Your task to perform on an android device: snooze an email in the gmail app Image 0: 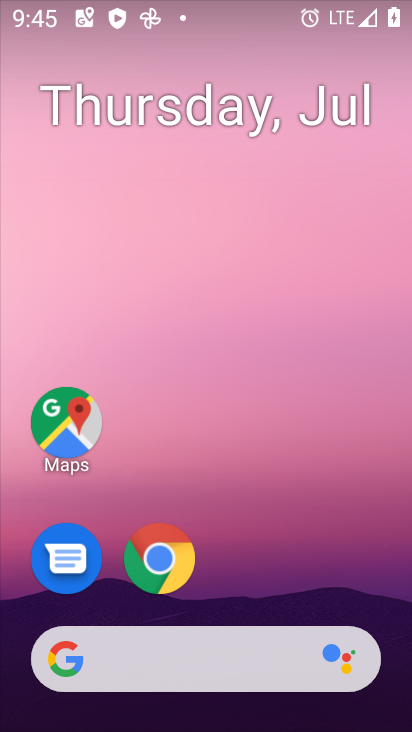
Step 0: drag from (372, 595) to (375, 135)
Your task to perform on an android device: snooze an email in the gmail app Image 1: 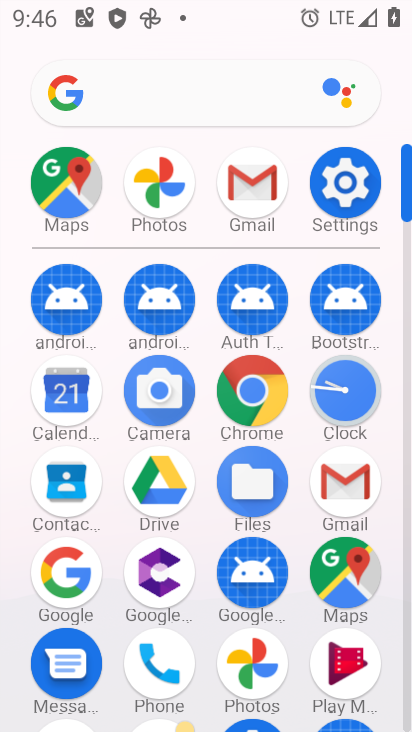
Step 1: click (268, 184)
Your task to perform on an android device: snooze an email in the gmail app Image 2: 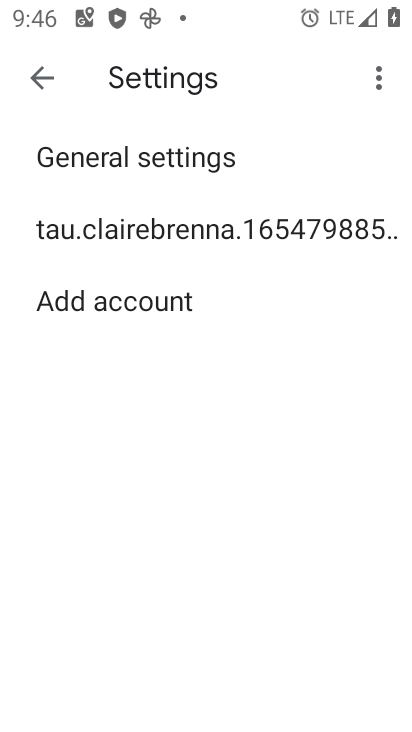
Step 2: press back button
Your task to perform on an android device: snooze an email in the gmail app Image 3: 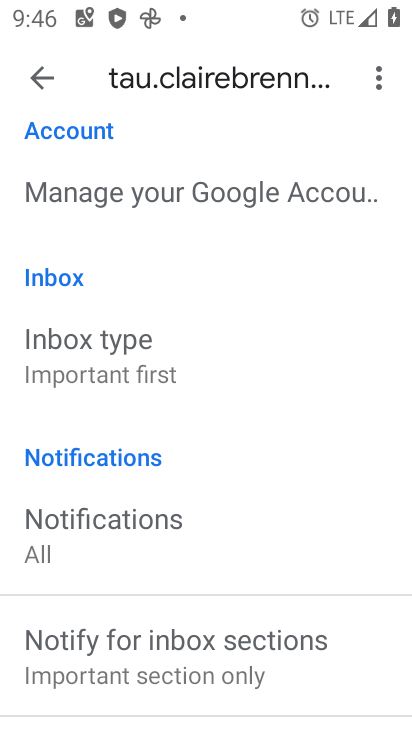
Step 3: press back button
Your task to perform on an android device: snooze an email in the gmail app Image 4: 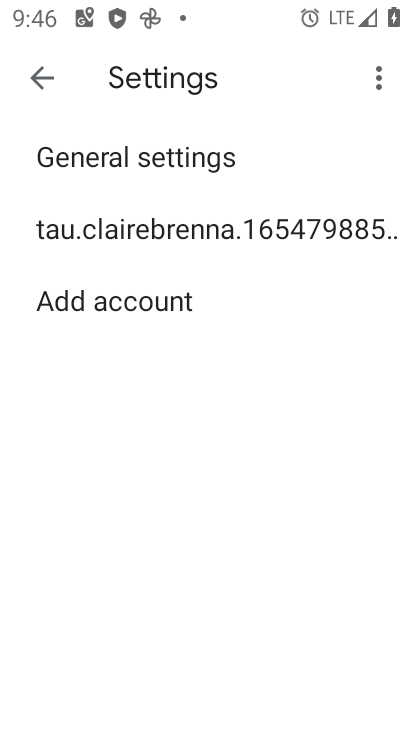
Step 4: press back button
Your task to perform on an android device: snooze an email in the gmail app Image 5: 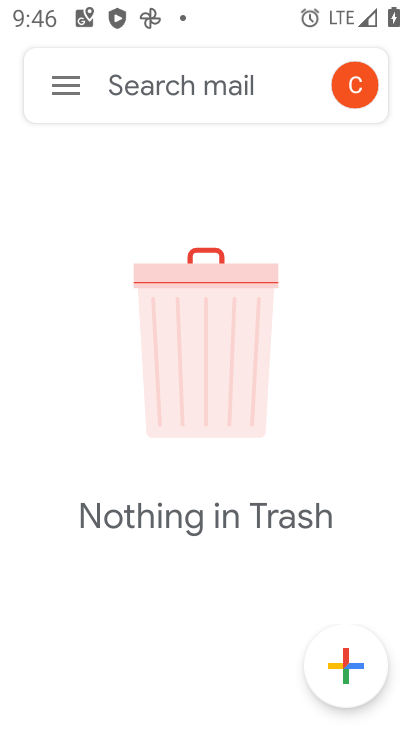
Step 5: click (74, 84)
Your task to perform on an android device: snooze an email in the gmail app Image 6: 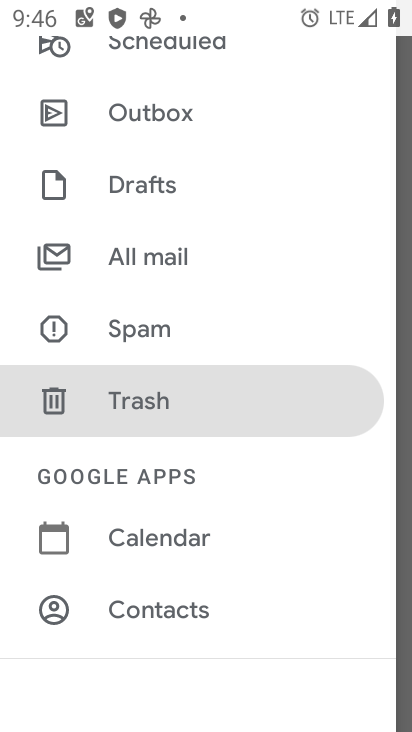
Step 6: drag from (316, 104) to (331, 228)
Your task to perform on an android device: snooze an email in the gmail app Image 7: 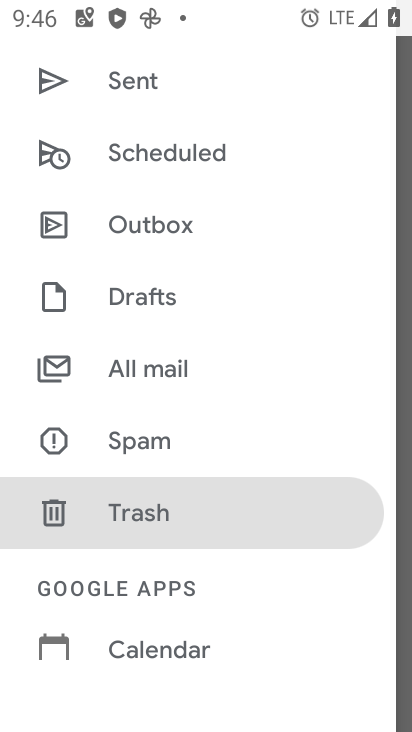
Step 7: drag from (331, 116) to (333, 276)
Your task to perform on an android device: snooze an email in the gmail app Image 8: 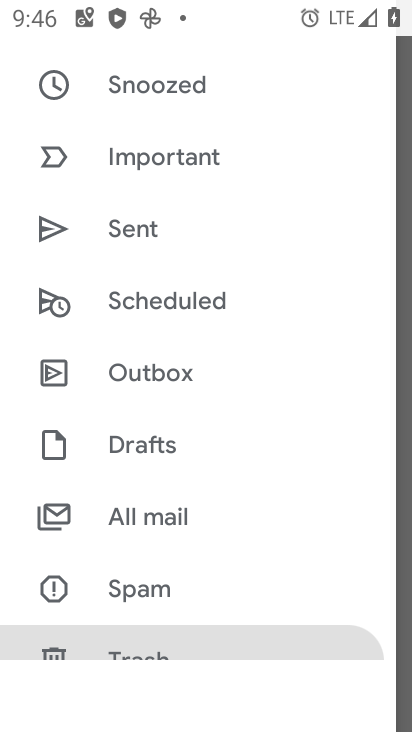
Step 8: drag from (331, 104) to (327, 252)
Your task to perform on an android device: snooze an email in the gmail app Image 9: 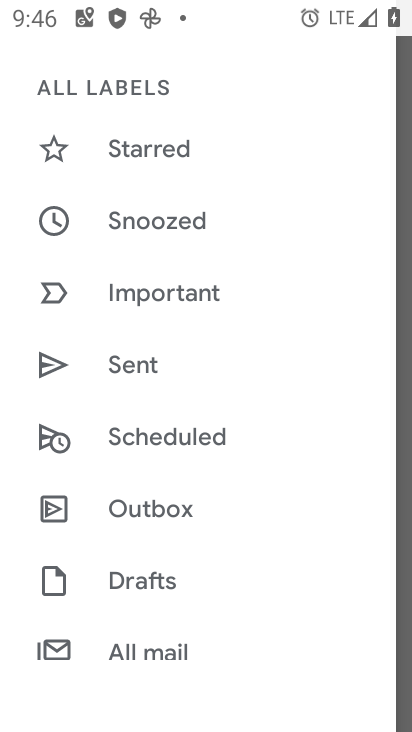
Step 9: click (204, 231)
Your task to perform on an android device: snooze an email in the gmail app Image 10: 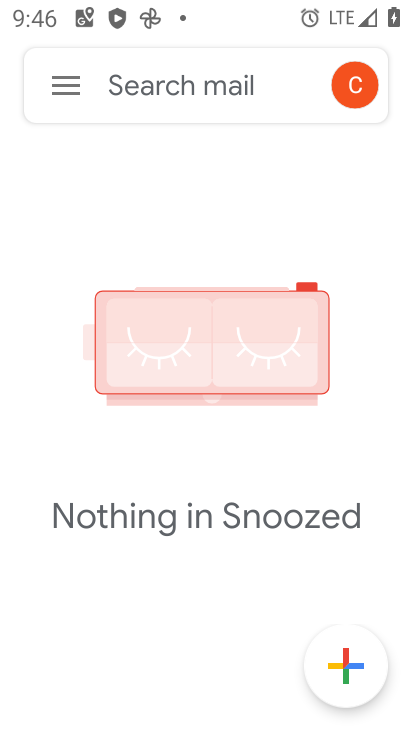
Step 10: task complete